Your task to perform on an android device: toggle javascript in the chrome app Image 0: 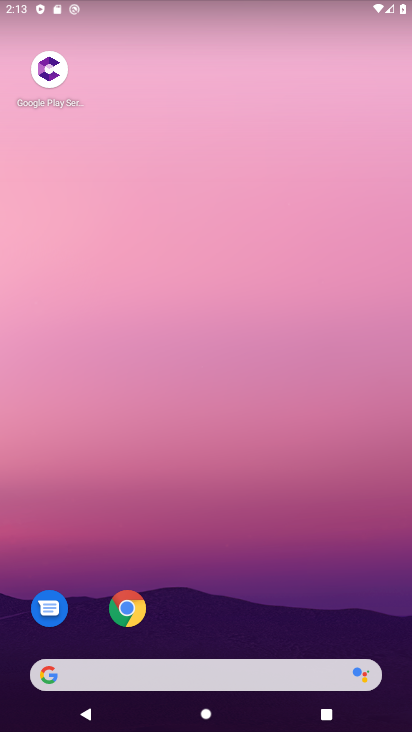
Step 0: click (143, 608)
Your task to perform on an android device: toggle javascript in the chrome app Image 1: 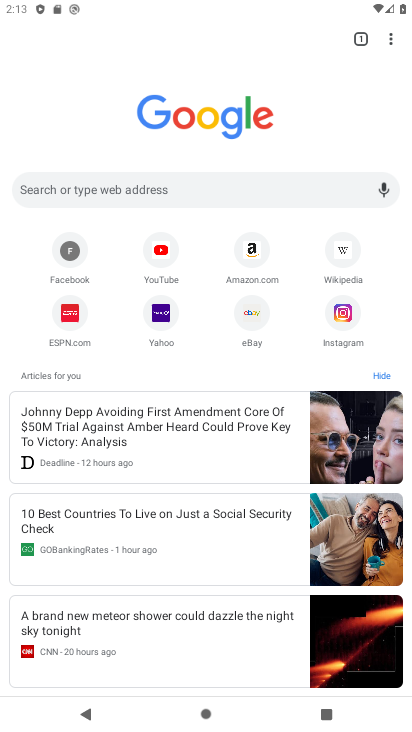
Step 1: click (391, 44)
Your task to perform on an android device: toggle javascript in the chrome app Image 2: 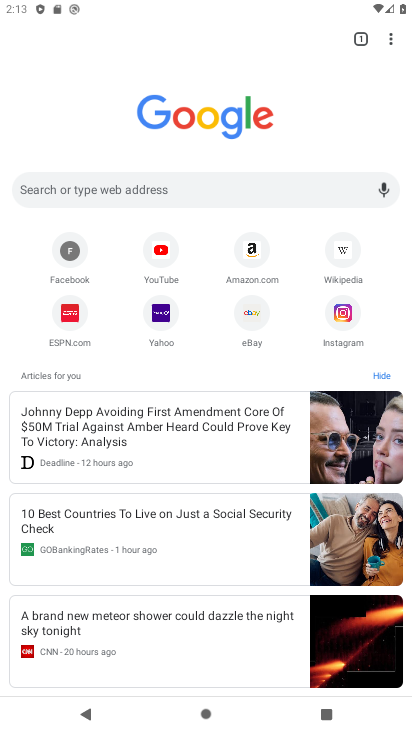
Step 2: click (389, 39)
Your task to perform on an android device: toggle javascript in the chrome app Image 3: 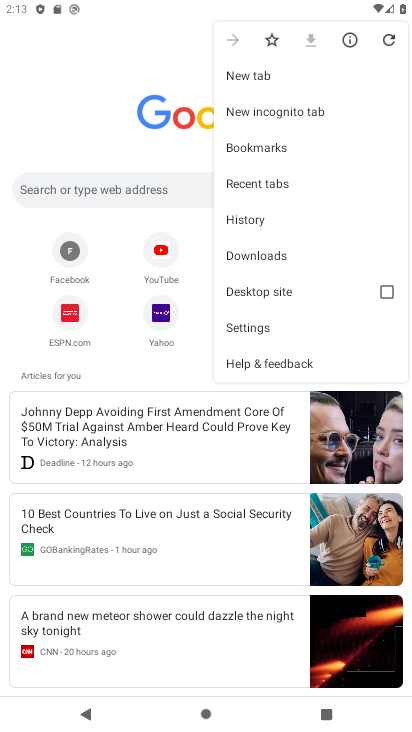
Step 3: click (261, 331)
Your task to perform on an android device: toggle javascript in the chrome app Image 4: 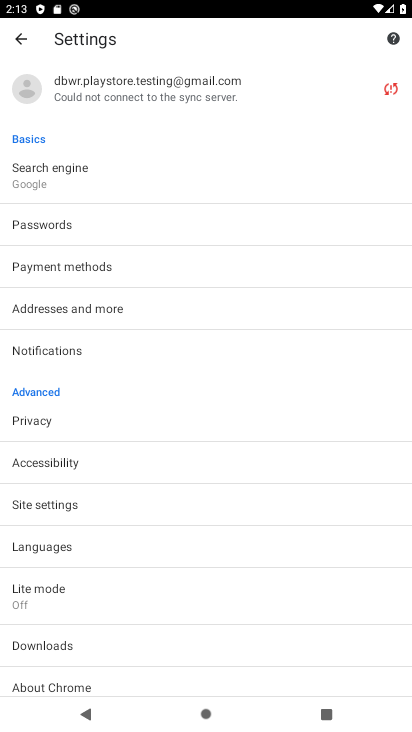
Step 4: click (68, 498)
Your task to perform on an android device: toggle javascript in the chrome app Image 5: 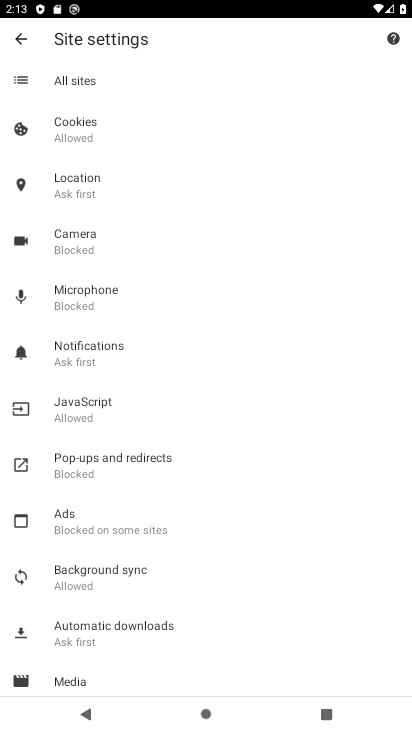
Step 5: click (93, 415)
Your task to perform on an android device: toggle javascript in the chrome app Image 6: 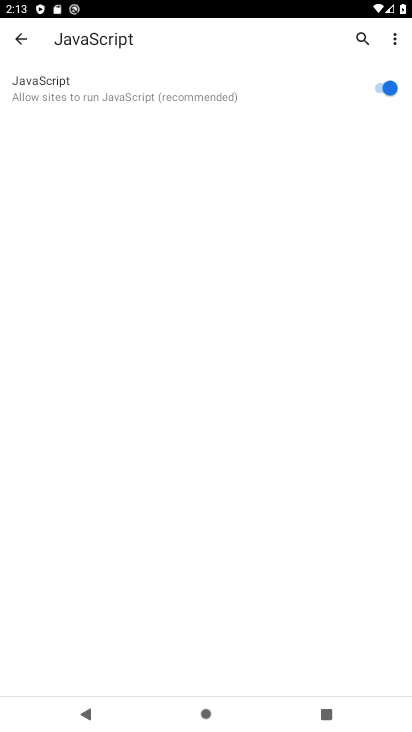
Step 6: click (365, 83)
Your task to perform on an android device: toggle javascript in the chrome app Image 7: 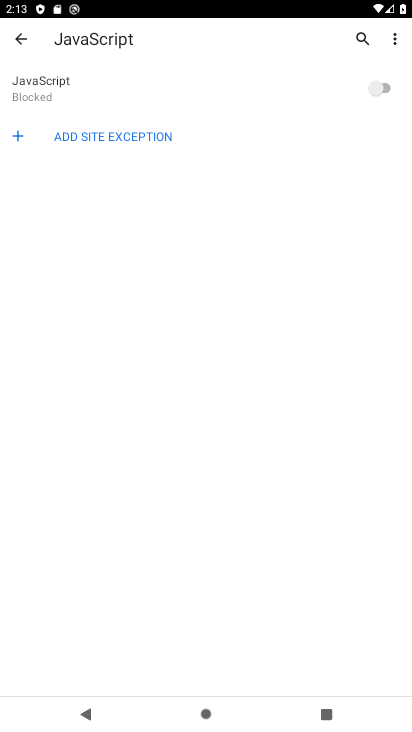
Step 7: task complete